Your task to perform on an android device: turn on the 12-hour format for clock Image 0: 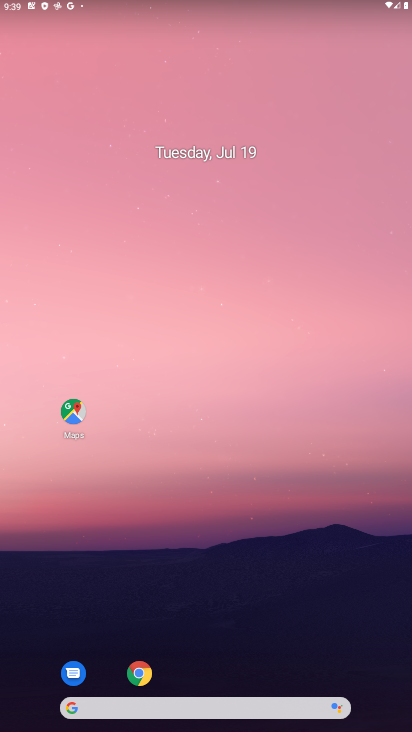
Step 0: drag from (234, 692) to (225, 257)
Your task to perform on an android device: turn on the 12-hour format for clock Image 1: 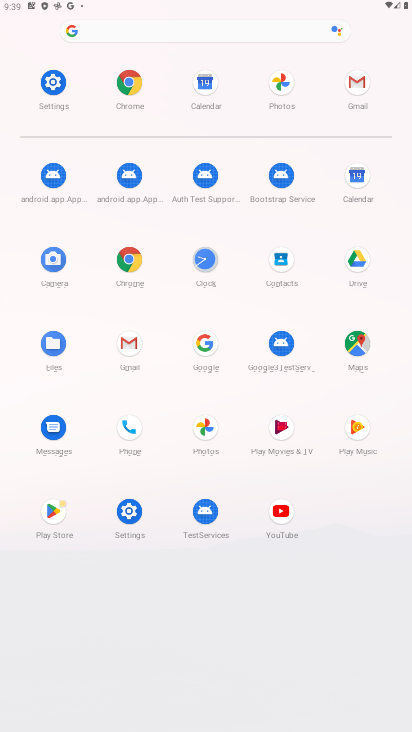
Step 1: click (192, 281)
Your task to perform on an android device: turn on the 12-hour format for clock Image 2: 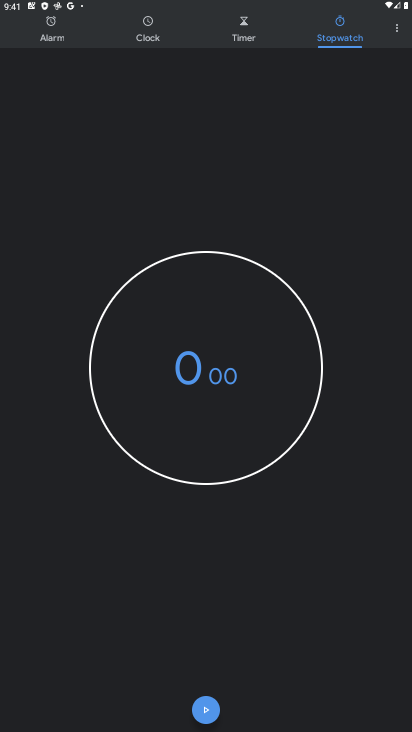
Step 2: click (394, 36)
Your task to perform on an android device: turn on the 12-hour format for clock Image 3: 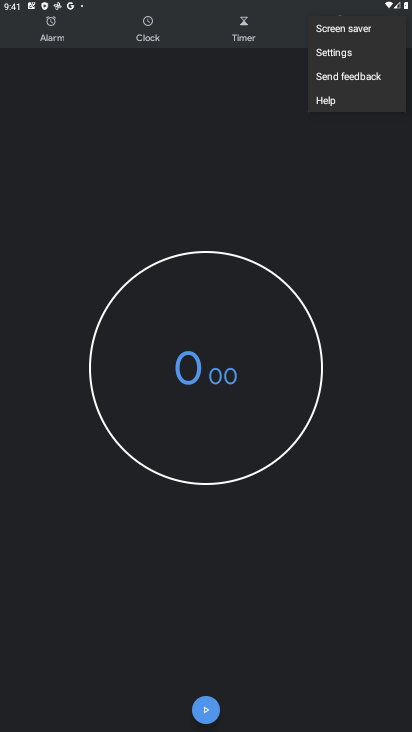
Step 3: click (340, 52)
Your task to perform on an android device: turn on the 12-hour format for clock Image 4: 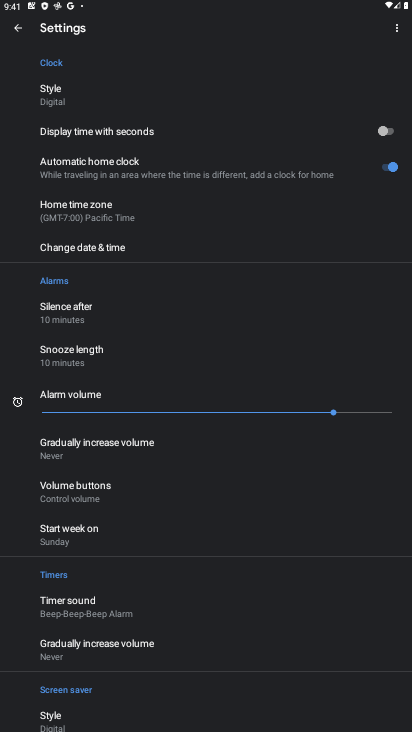
Step 4: click (190, 247)
Your task to perform on an android device: turn on the 12-hour format for clock Image 5: 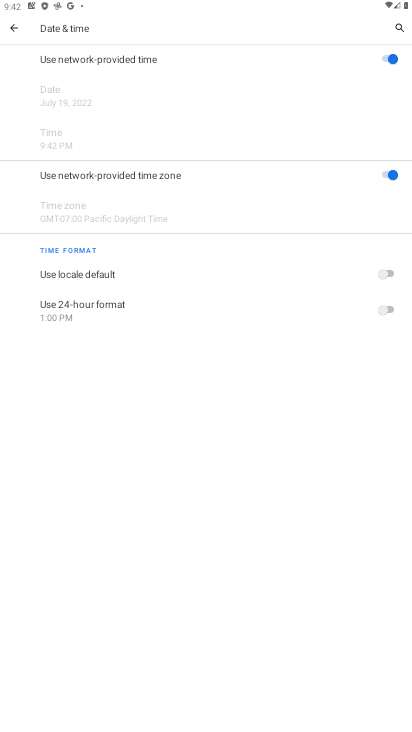
Step 5: task complete